Your task to perform on an android device: turn off sleep mode Image 0: 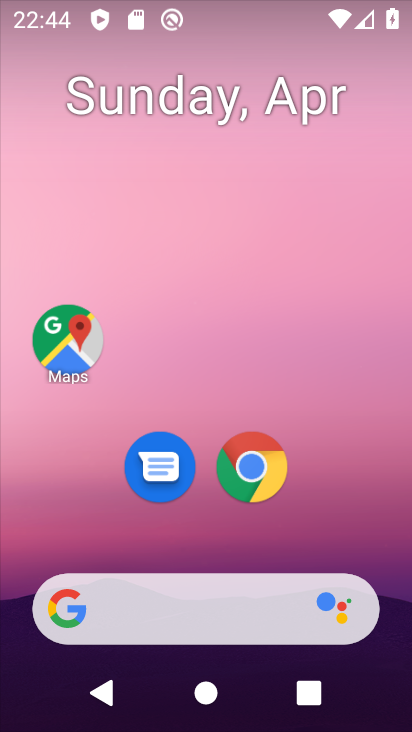
Step 0: drag from (244, 474) to (283, 156)
Your task to perform on an android device: turn off sleep mode Image 1: 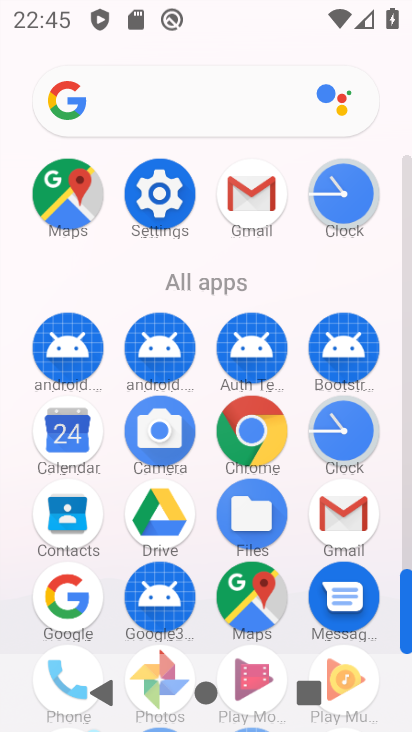
Step 1: click (168, 194)
Your task to perform on an android device: turn off sleep mode Image 2: 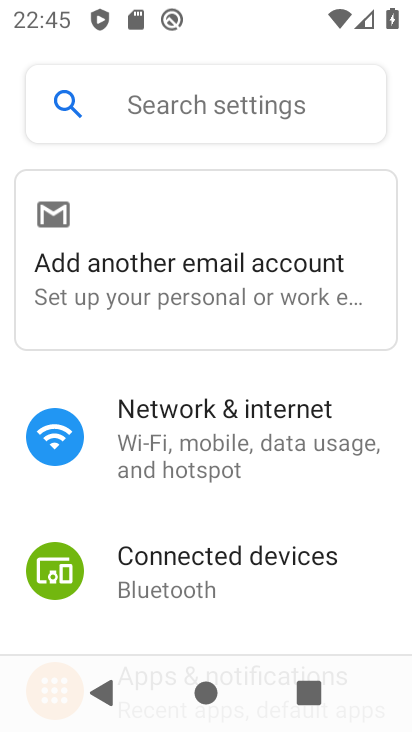
Step 2: drag from (281, 578) to (258, 18)
Your task to perform on an android device: turn off sleep mode Image 3: 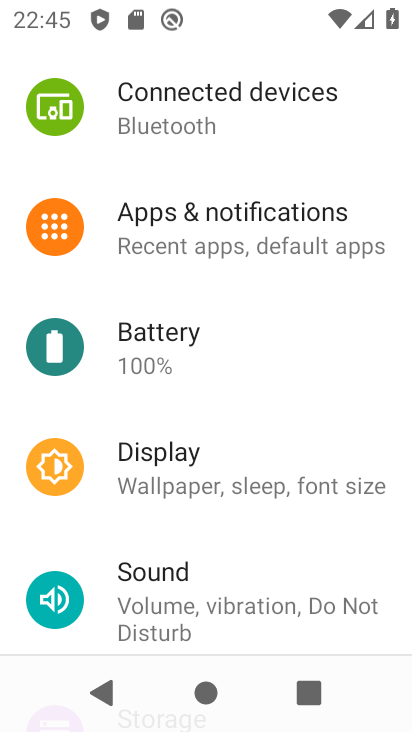
Step 3: click (192, 467)
Your task to perform on an android device: turn off sleep mode Image 4: 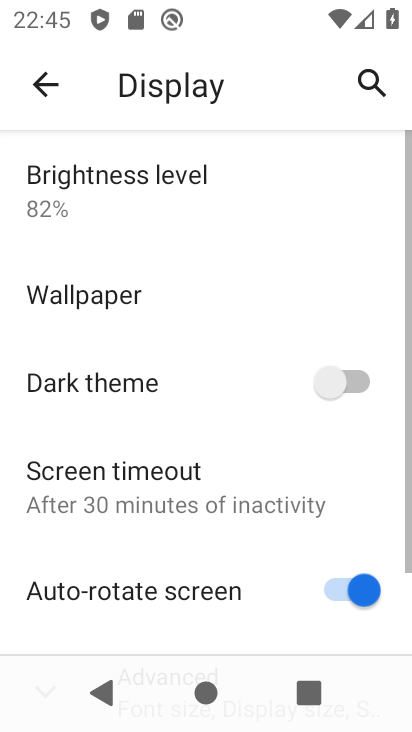
Step 4: click (158, 489)
Your task to perform on an android device: turn off sleep mode Image 5: 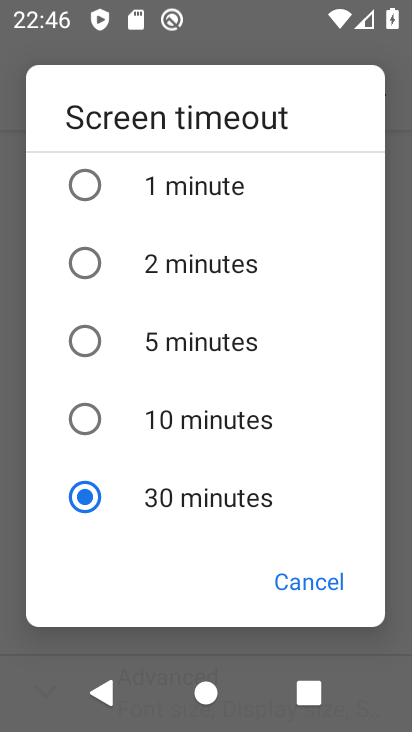
Step 5: task complete